Your task to perform on an android device: Open privacy settings Image 0: 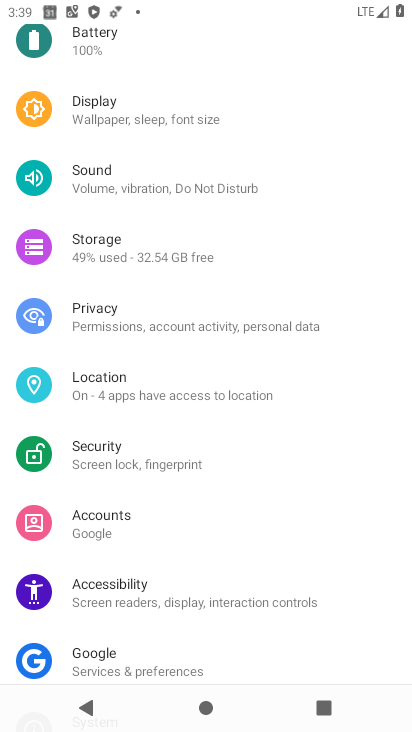
Step 0: drag from (122, 647) to (204, 142)
Your task to perform on an android device: Open privacy settings Image 1: 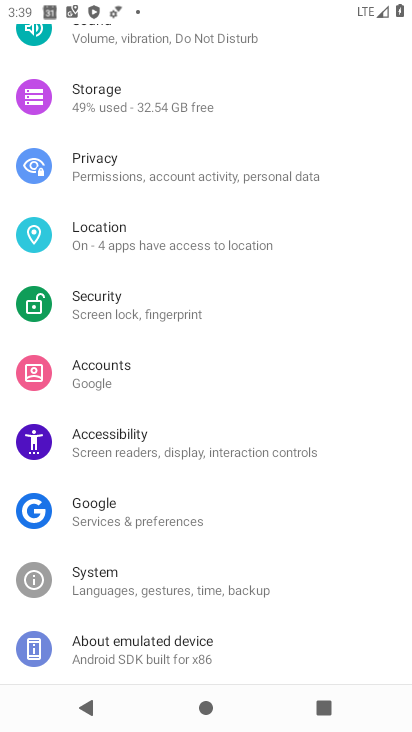
Step 1: click (123, 163)
Your task to perform on an android device: Open privacy settings Image 2: 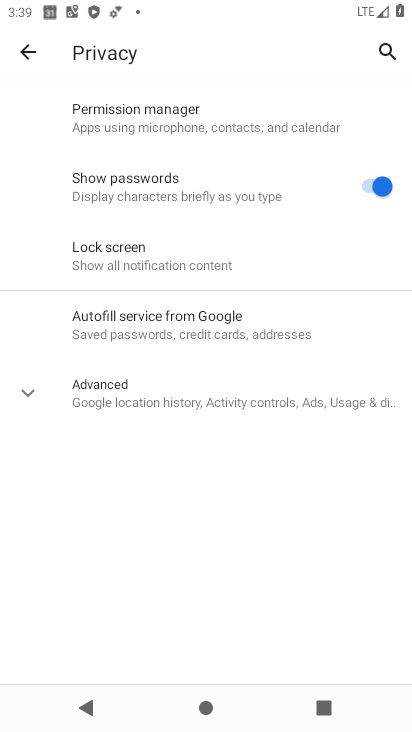
Step 2: task complete